Your task to perform on an android device: turn off wifi Image 0: 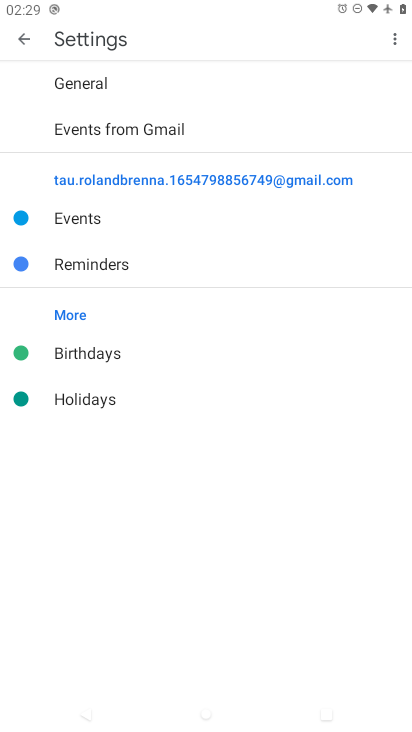
Step 0: press home button
Your task to perform on an android device: turn off wifi Image 1: 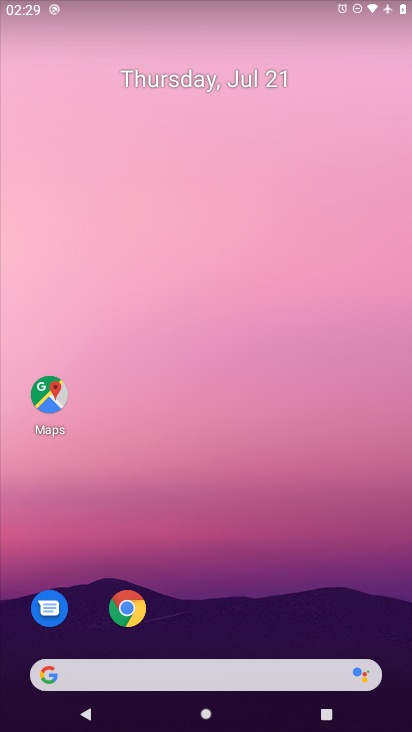
Step 1: drag from (187, 1) to (211, 662)
Your task to perform on an android device: turn off wifi Image 2: 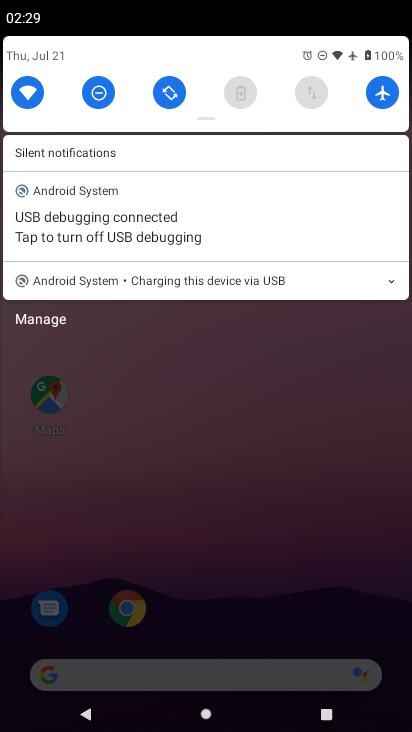
Step 2: click (34, 102)
Your task to perform on an android device: turn off wifi Image 3: 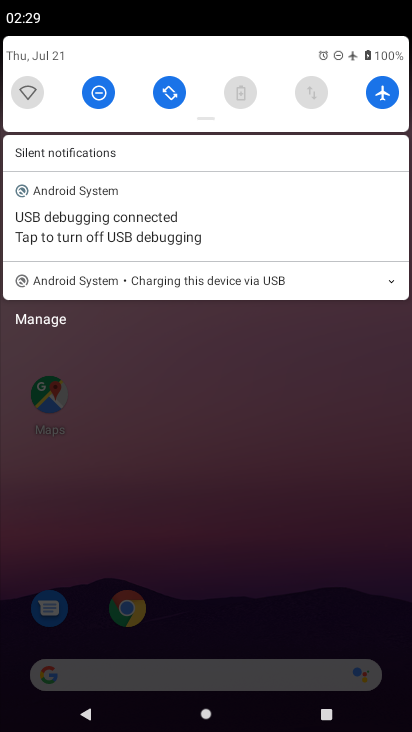
Step 3: task complete